Your task to perform on an android device: Is it going to rain tomorrow? Image 0: 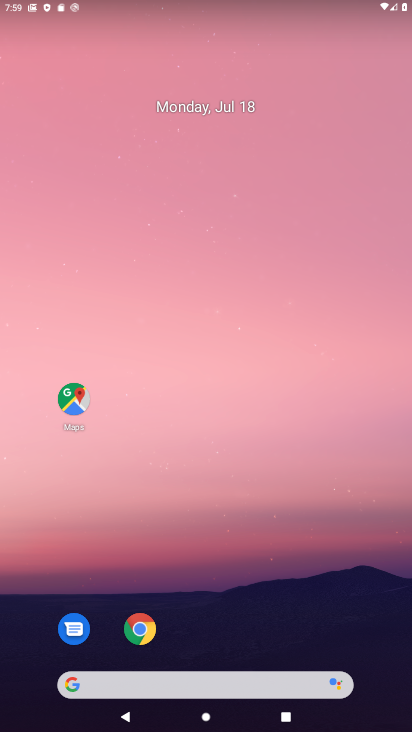
Step 0: drag from (10, 257) to (390, 341)
Your task to perform on an android device: Is it going to rain tomorrow? Image 1: 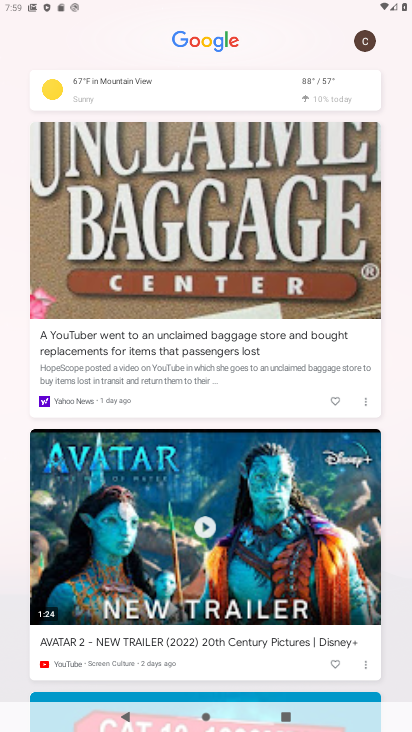
Step 1: click (318, 79)
Your task to perform on an android device: Is it going to rain tomorrow? Image 2: 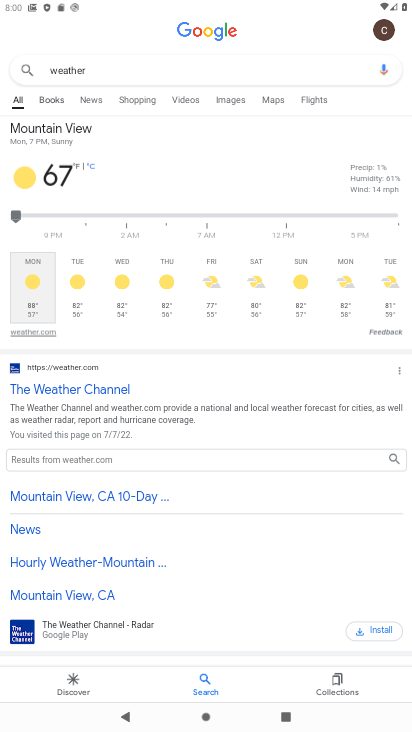
Step 2: click (84, 271)
Your task to perform on an android device: Is it going to rain tomorrow? Image 3: 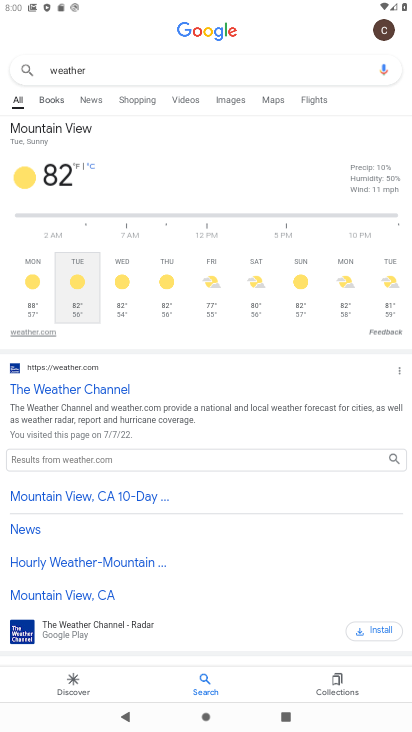
Step 3: click (31, 291)
Your task to perform on an android device: Is it going to rain tomorrow? Image 4: 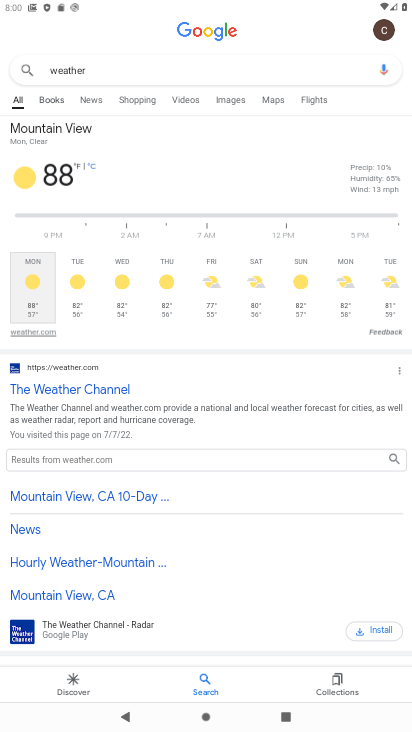
Step 4: click (72, 290)
Your task to perform on an android device: Is it going to rain tomorrow? Image 5: 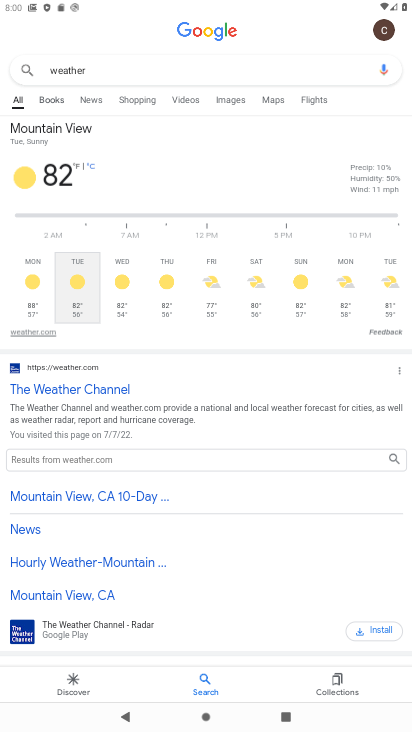
Step 5: task complete